Your task to perform on an android device: turn off location history Image 0: 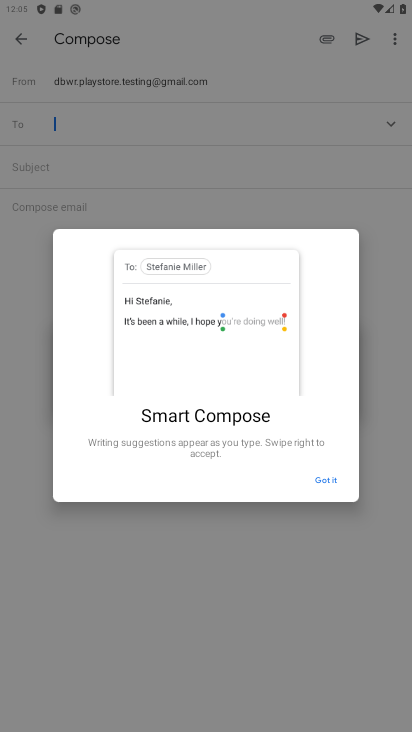
Step 0: drag from (364, 621) to (321, 199)
Your task to perform on an android device: turn off location history Image 1: 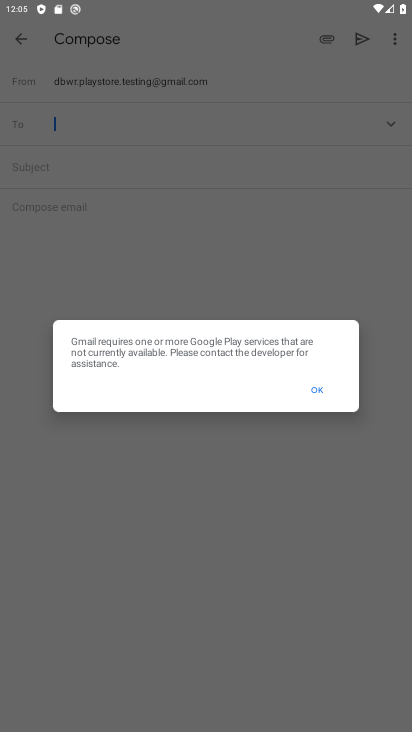
Step 1: press home button
Your task to perform on an android device: turn off location history Image 2: 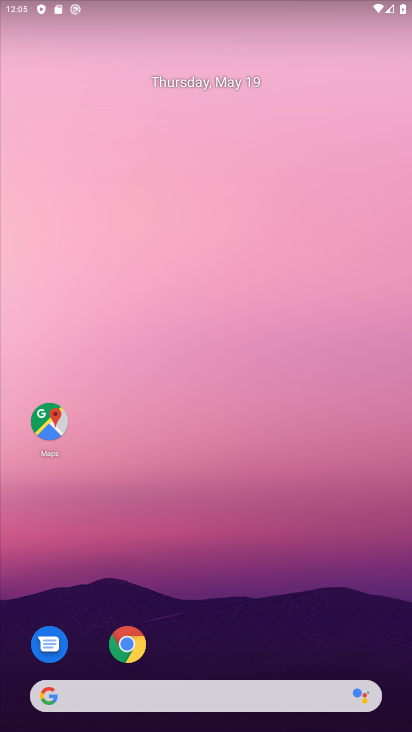
Step 2: drag from (377, 596) to (371, 189)
Your task to perform on an android device: turn off location history Image 3: 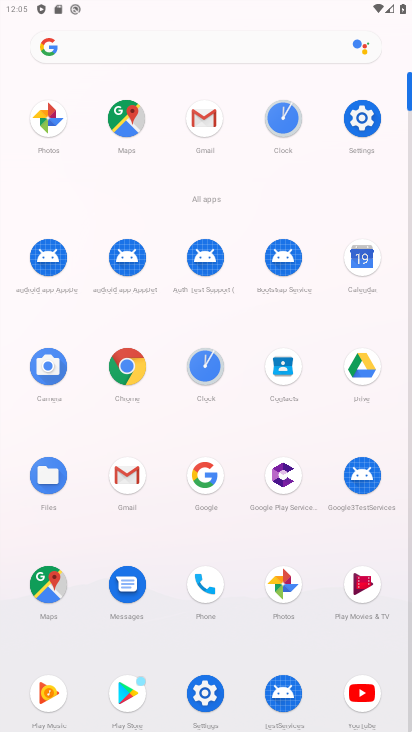
Step 3: click (374, 119)
Your task to perform on an android device: turn off location history Image 4: 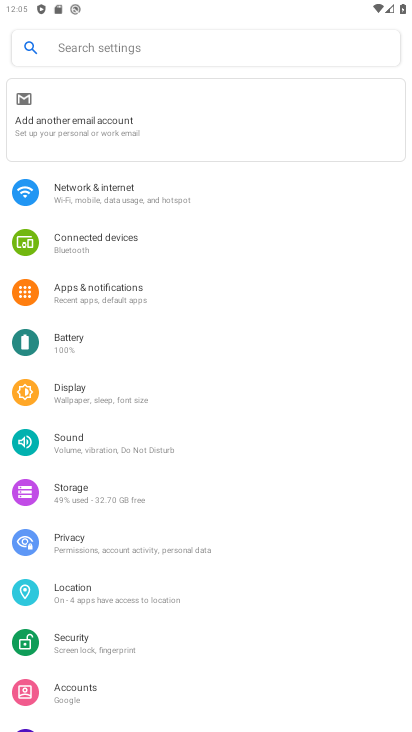
Step 4: drag from (241, 568) to (246, 298)
Your task to perform on an android device: turn off location history Image 5: 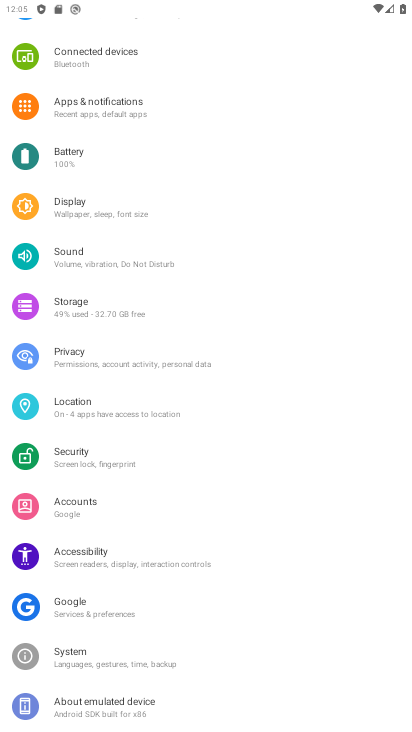
Step 5: click (117, 410)
Your task to perform on an android device: turn off location history Image 6: 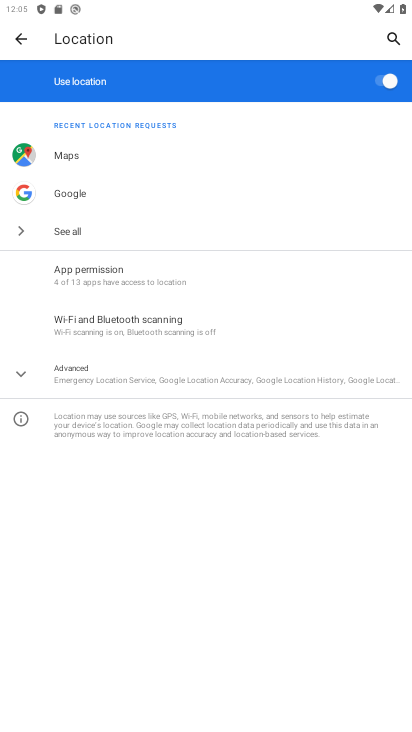
Step 6: click (215, 378)
Your task to perform on an android device: turn off location history Image 7: 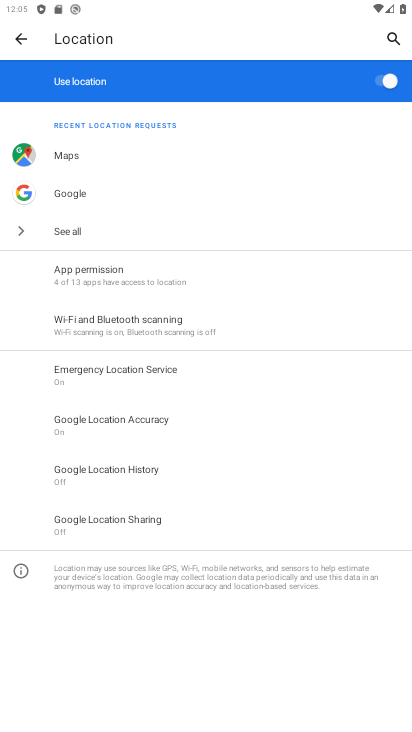
Step 7: click (116, 465)
Your task to perform on an android device: turn off location history Image 8: 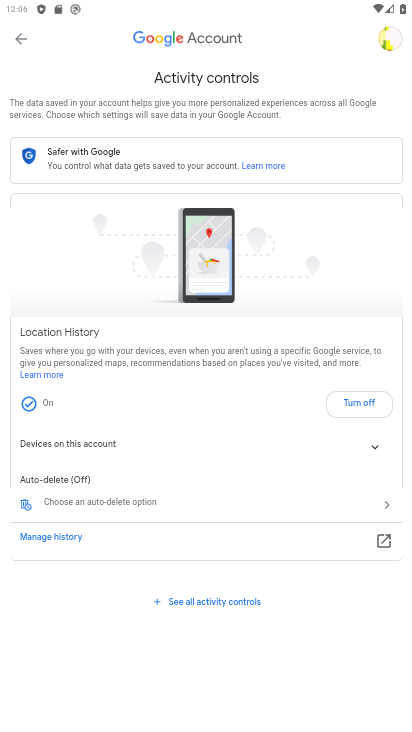
Step 8: task complete